Your task to perform on an android device: delete browsing data in the chrome app Image 0: 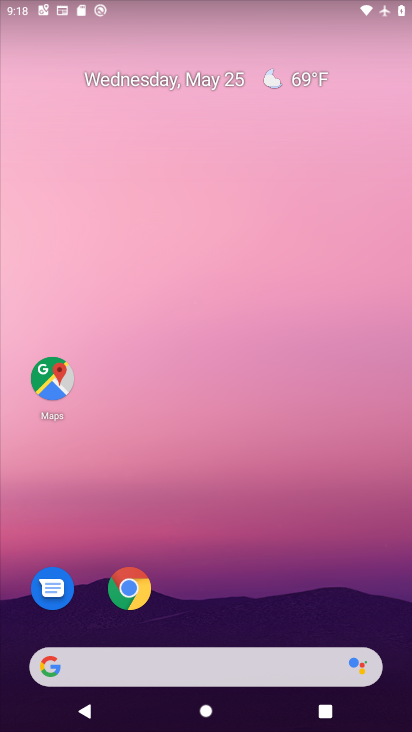
Step 0: drag from (369, 595) to (359, 212)
Your task to perform on an android device: delete browsing data in the chrome app Image 1: 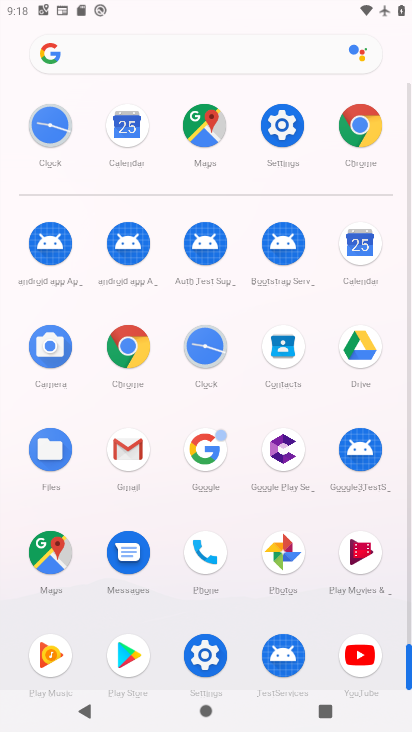
Step 1: click (365, 136)
Your task to perform on an android device: delete browsing data in the chrome app Image 2: 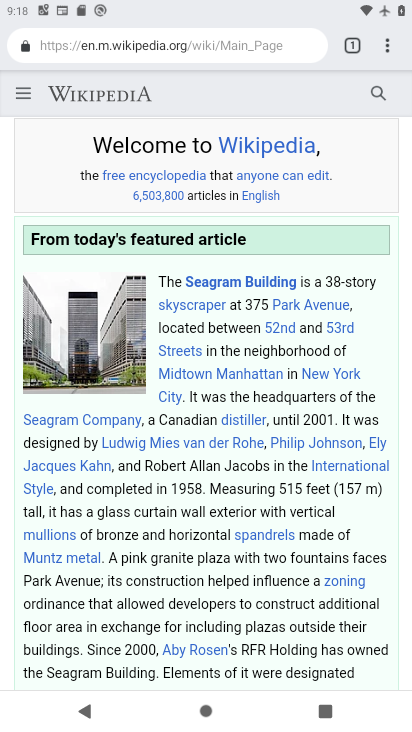
Step 2: click (387, 54)
Your task to perform on an android device: delete browsing data in the chrome app Image 3: 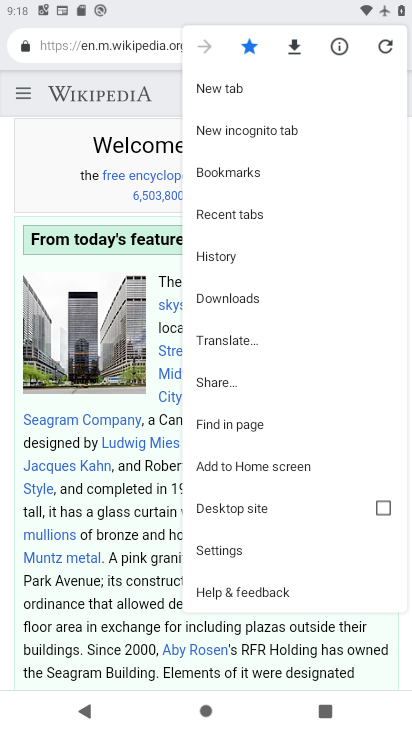
Step 3: click (243, 549)
Your task to perform on an android device: delete browsing data in the chrome app Image 4: 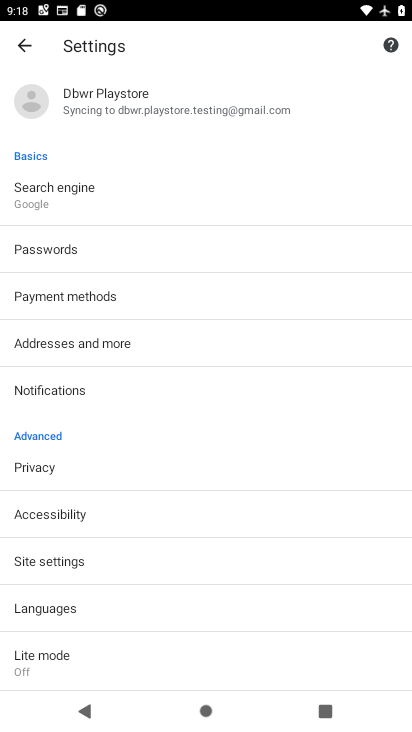
Step 4: click (198, 469)
Your task to perform on an android device: delete browsing data in the chrome app Image 5: 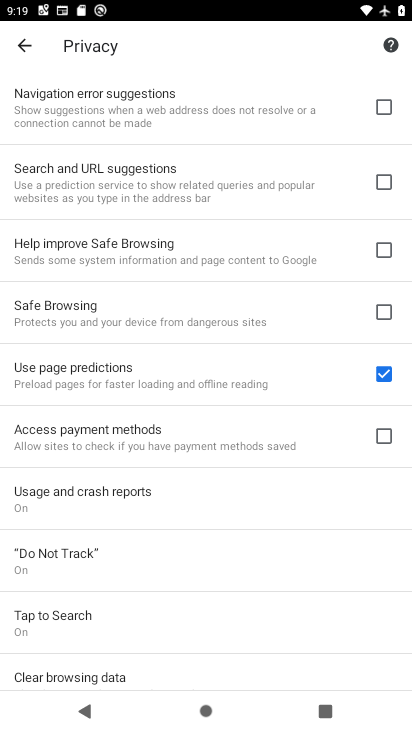
Step 5: click (147, 678)
Your task to perform on an android device: delete browsing data in the chrome app Image 6: 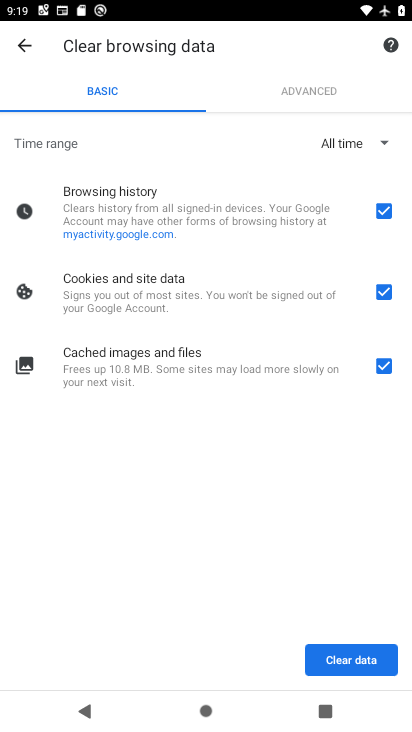
Step 6: click (348, 662)
Your task to perform on an android device: delete browsing data in the chrome app Image 7: 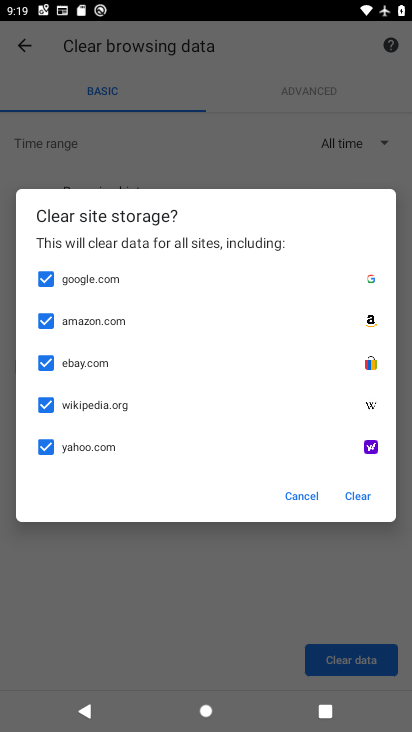
Step 7: click (361, 497)
Your task to perform on an android device: delete browsing data in the chrome app Image 8: 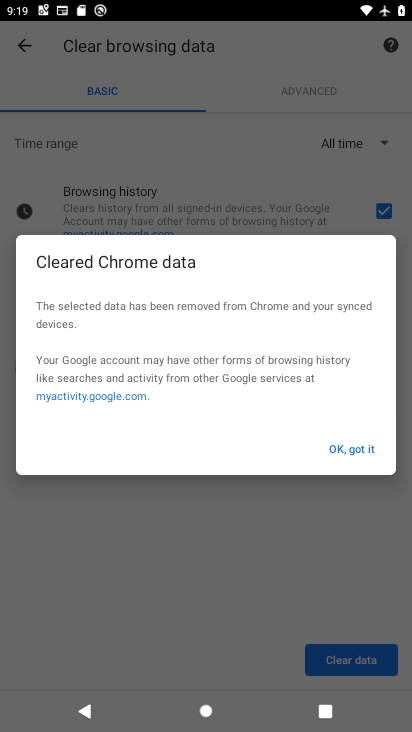
Step 8: task complete